Your task to perform on an android device: When is my next meeting? Image 0: 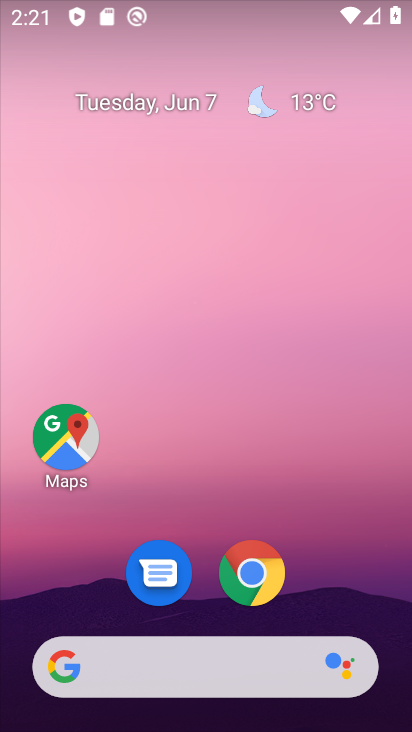
Step 0: drag from (331, 585) to (311, 41)
Your task to perform on an android device: When is my next meeting? Image 1: 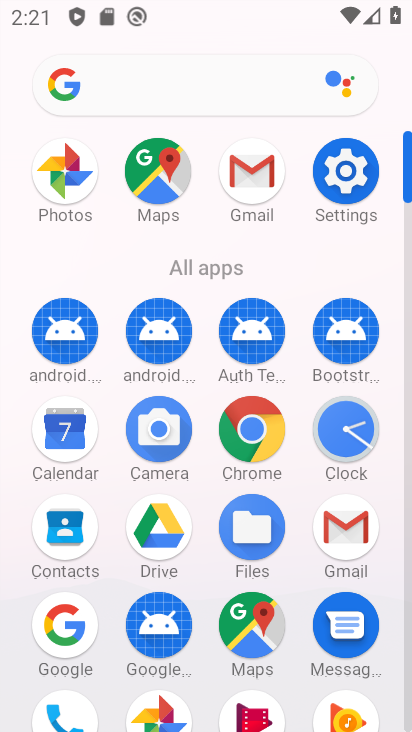
Step 1: click (54, 431)
Your task to perform on an android device: When is my next meeting? Image 2: 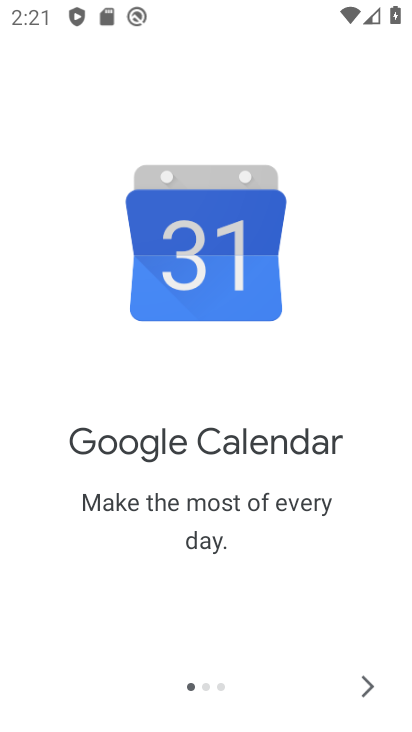
Step 2: click (360, 685)
Your task to perform on an android device: When is my next meeting? Image 3: 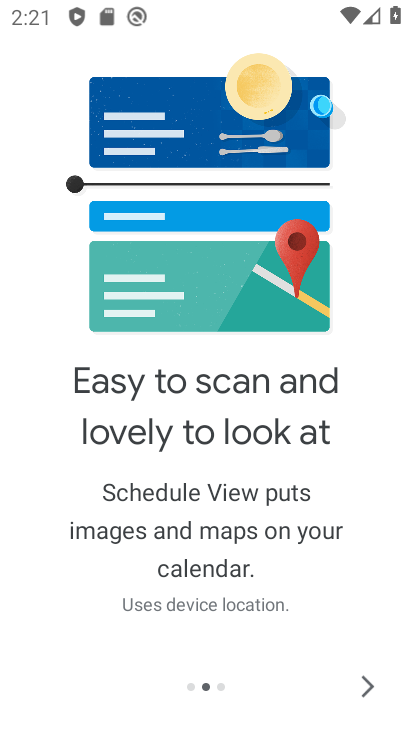
Step 3: click (360, 685)
Your task to perform on an android device: When is my next meeting? Image 4: 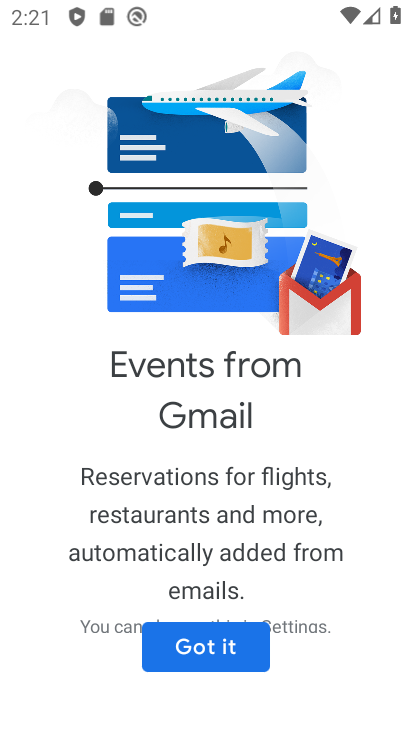
Step 4: click (217, 651)
Your task to perform on an android device: When is my next meeting? Image 5: 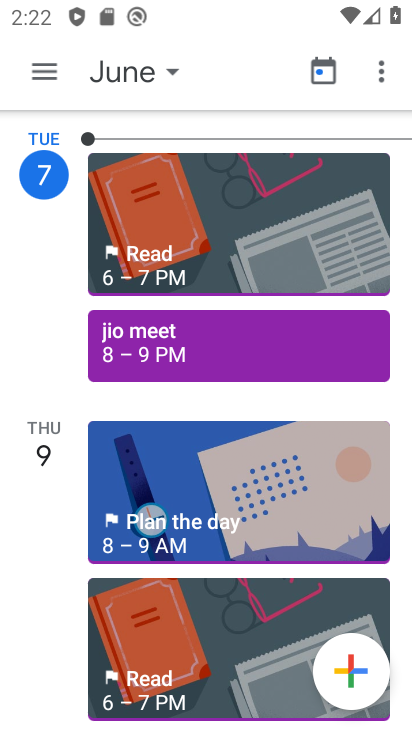
Step 5: task complete